Your task to perform on an android device: empty trash in the gmail app Image 0: 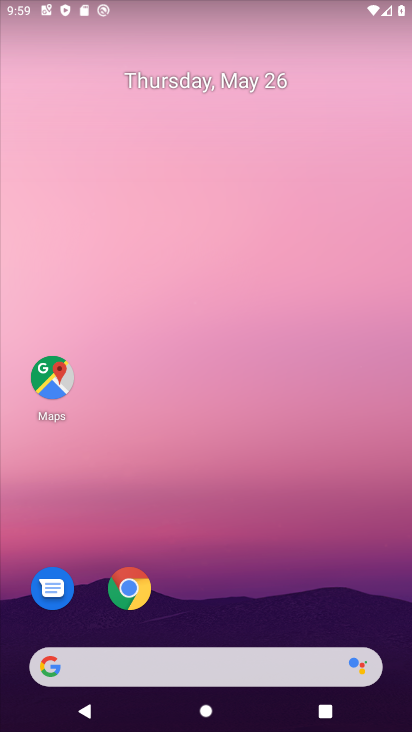
Step 0: drag from (236, 729) to (209, 129)
Your task to perform on an android device: empty trash in the gmail app Image 1: 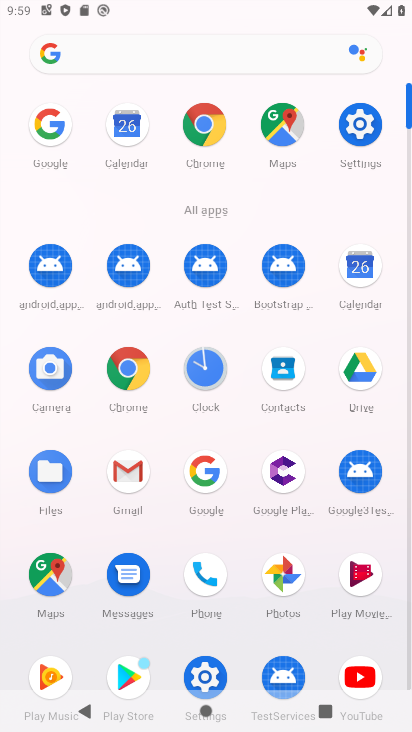
Step 1: click (133, 482)
Your task to perform on an android device: empty trash in the gmail app Image 2: 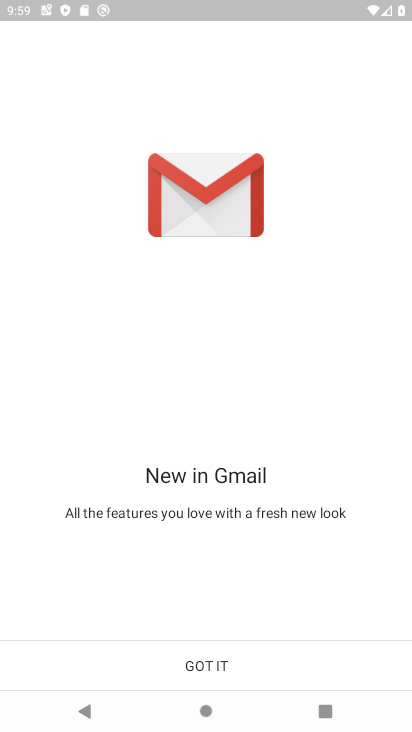
Step 2: click (228, 660)
Your task to perform on an android device: empty trash in the gmail app Image 3: 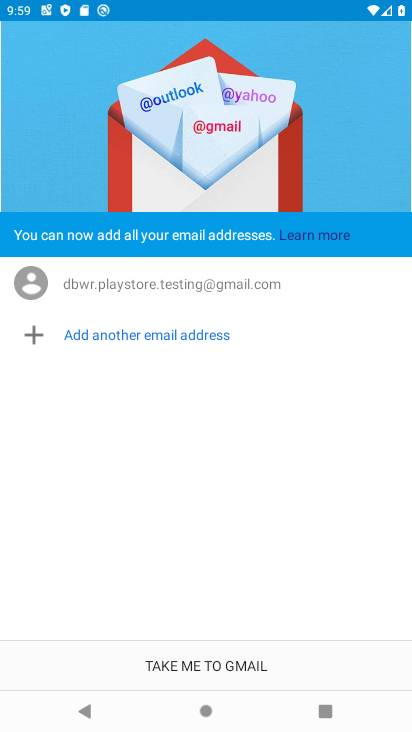
Step 3: click (224, 659)
Your task to perform on an android device: empty trash in the gmail app Image 4: 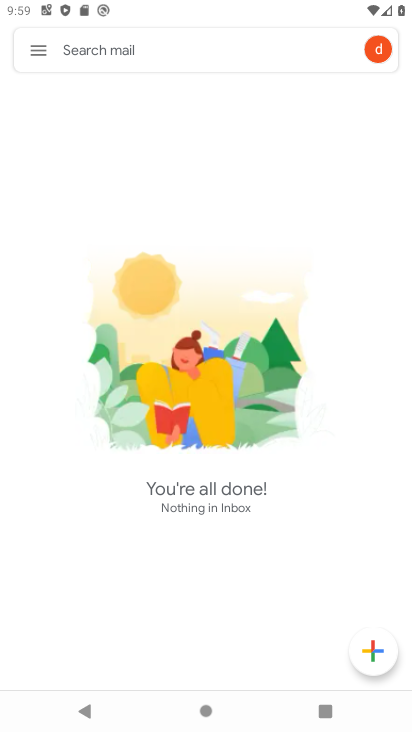
Step 4: click (38, 47)
Your task to perform on an android device: empty trash in the gmail app Image 5: 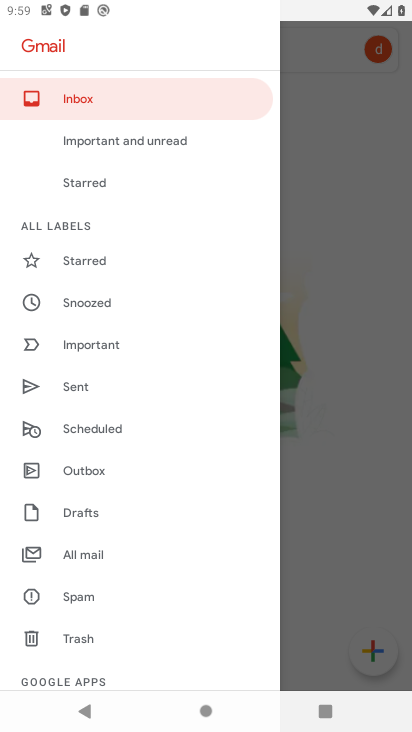
Step 5: click (83, 639)
Your task to perform on an android device: empty trash in the gmail app Image 6: 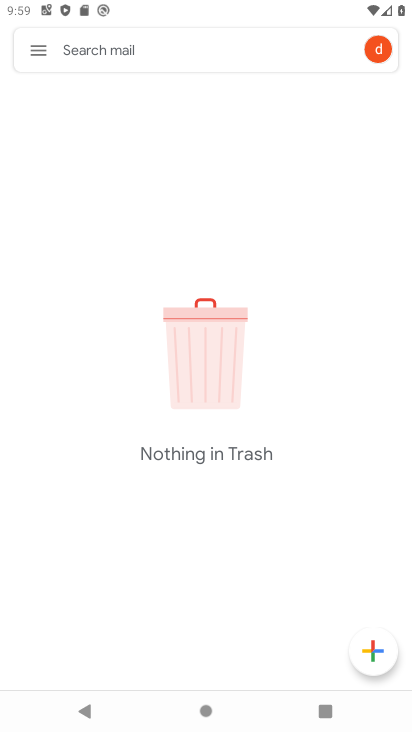
Step 6: task complete